Your task to perform on an android device: show emergency info Image 0: 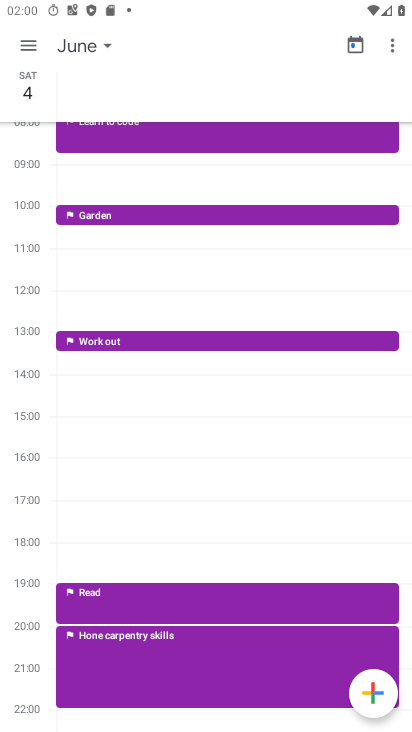
Step 0: press home button
Your task to perform on an android device: show emergency info Image 1: 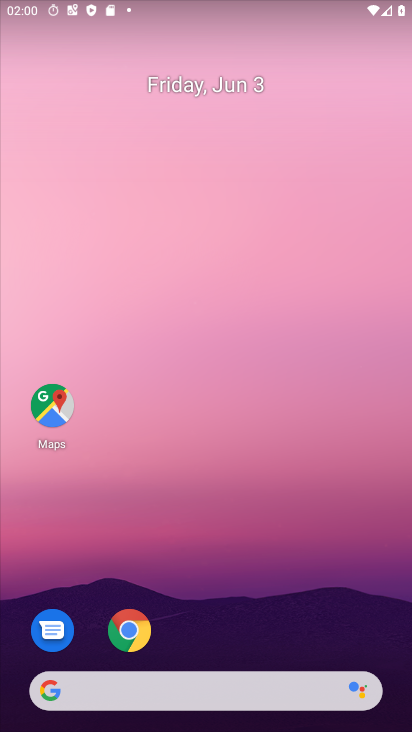
Step 1: drag from (236, 637) to (179, 169)
Your task to perform on an android device: show emergency info Image 2: 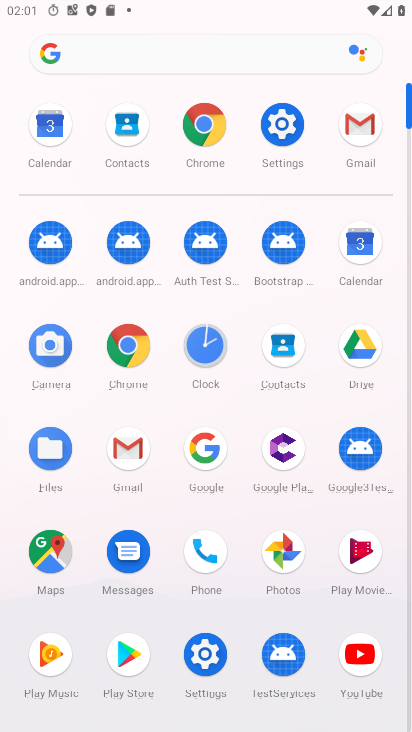
Step 2: type ""
Your task to perform on an android device: show emergency info Image 3: 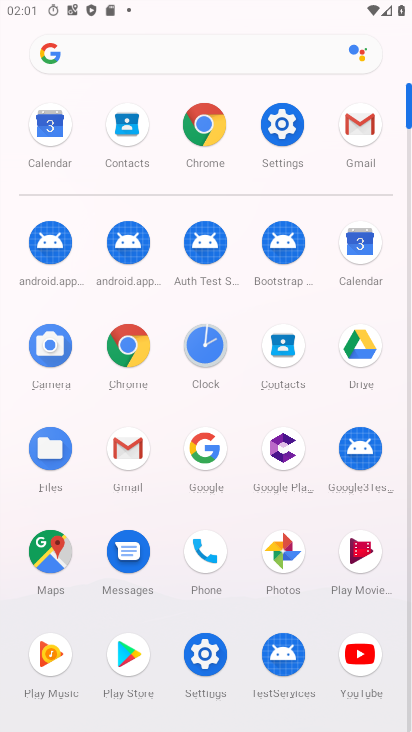
Step 3: click (214, 667)
Your task to perform on an android device: show emergency info Image 4: 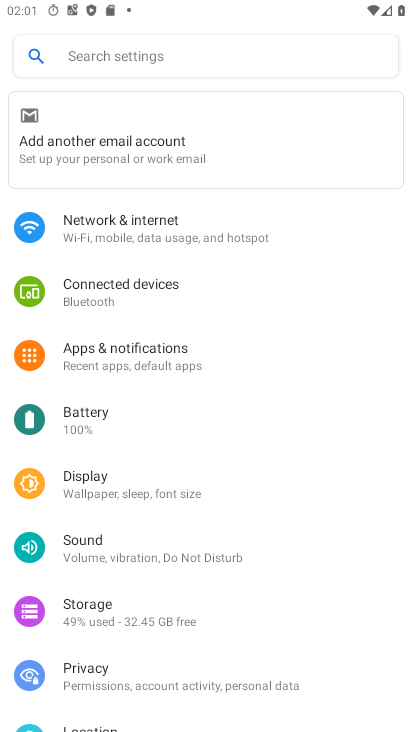
Step 4: drag from (193, 718) to (166, 295)
Your task to perform on an android device: show emergency info Image 5: 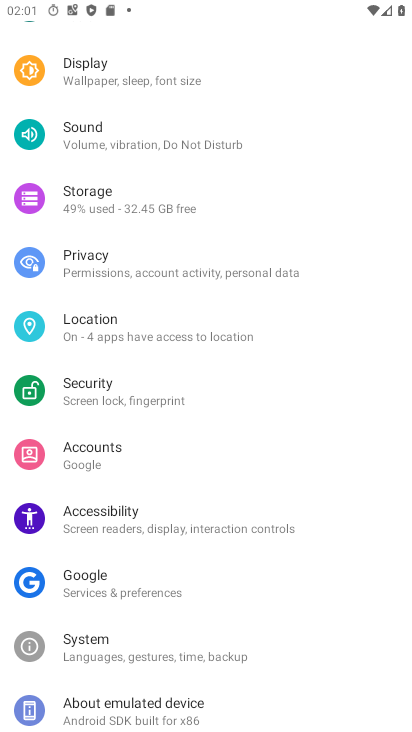
Step 5: drag from (231, 706) to (186, 344)
Your task to perform on an android device: show emergency info Image 6: 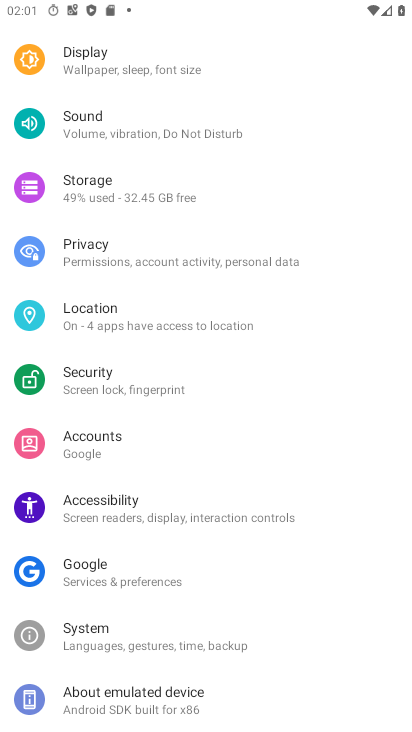
Step 6: click (172, 686)
Your task to perform on an android device: show emergency info Image 7: 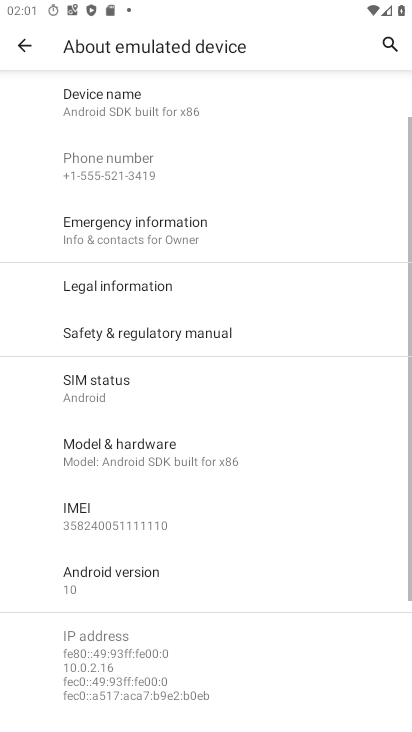
Step 7: click (189, 244)
Your task to perform on an android device: show emergency info Image 8: 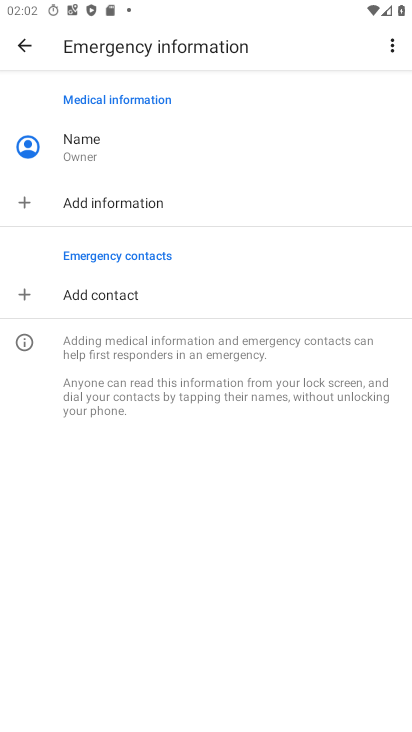
Step 8: task complete